Your task to perform on an android device: Open Amazon Image 0: 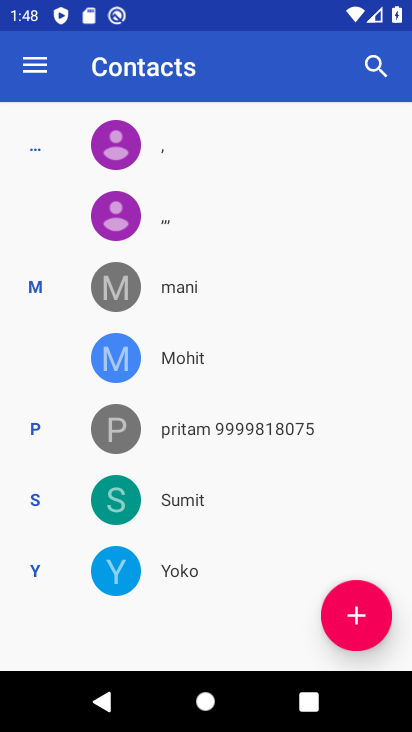
Step 0: press home button
Your task to perform on an android device: Open Amazon Image 1: 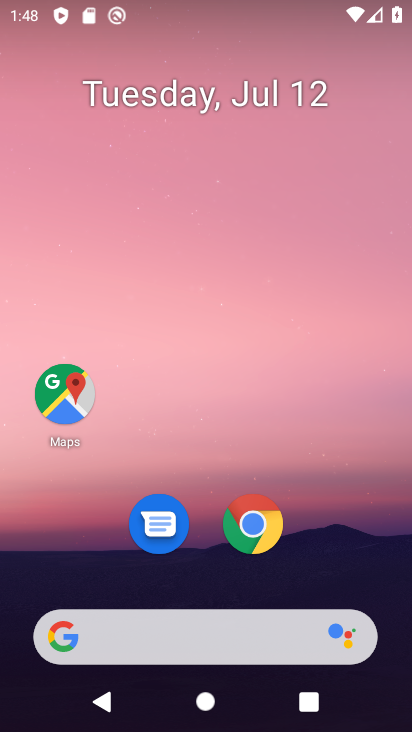
Step 1: click (258, 532)
Your task to perform on an android device: Open Amazon Image 2: 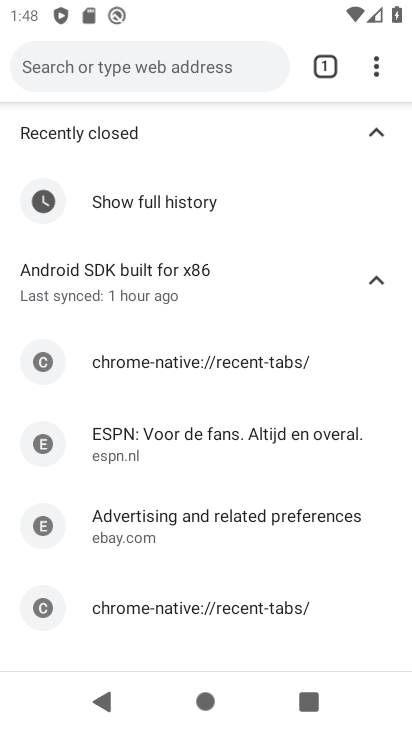
Step 2: click (371, 68)
Your task to perform on an android device: Open Amazon Image 3: 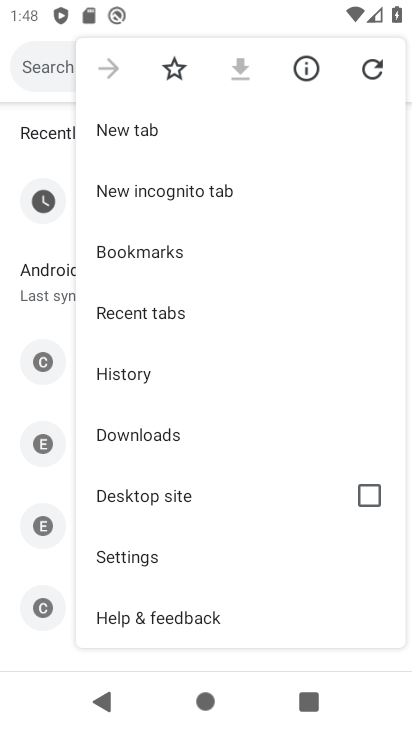
Step 3: click (285, 126)
Your task to perform on an android device: Open Amazon Image 4: 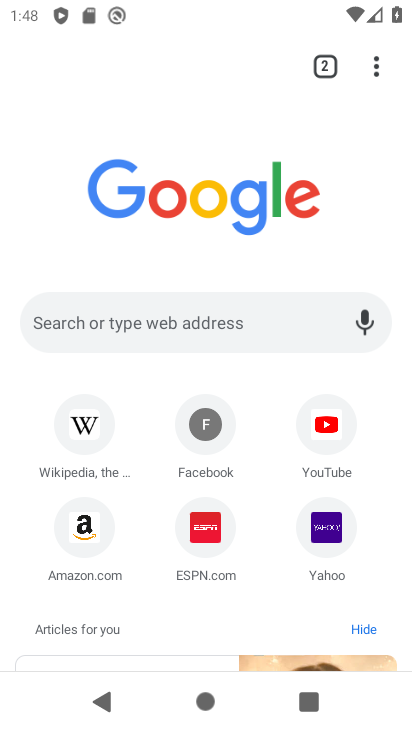
Step 4: click (84, 513)
Your task to perform on an android device: Open Amazon Image 5: 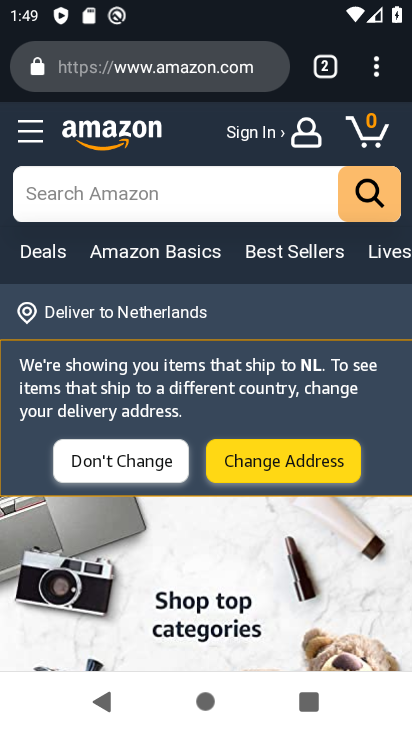
Step 5: task complete